Your task to perform on an android device: set default search engine in the chrome app Image 0: 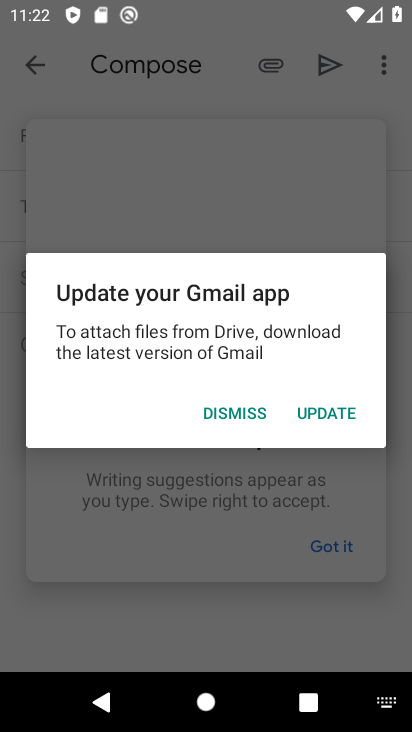
Step 0: press home button
Your task to perform on an android device: set default search engine in the chrome app Image 1: 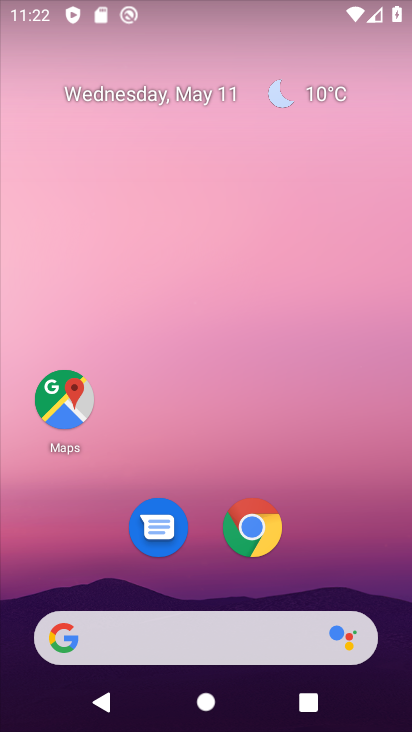
Step 1: drag from (194, 587) to (194, 84)
Your task to perform on an android device: set default search engine in the chrome app Image 2: 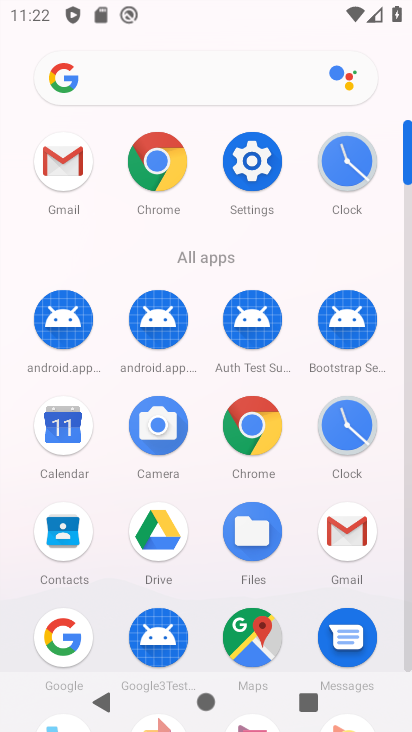
Step 2: click (238, 453)
Your task to perform on an android device: set default search engine in the chrome app Image 3: 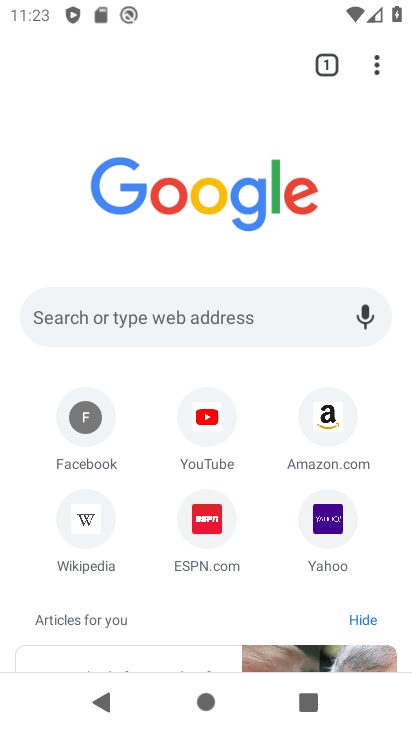
Step 3: click (377, 61)
Your task to perform on an android device: set default search engine in the chrome app Image 4: 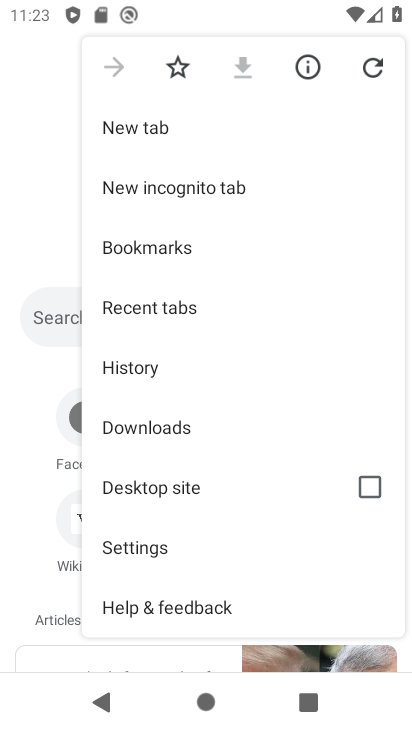
Step 4: click (147, 539)
Your task to perform on an android device: set default search engine in the chrome app Image 5: 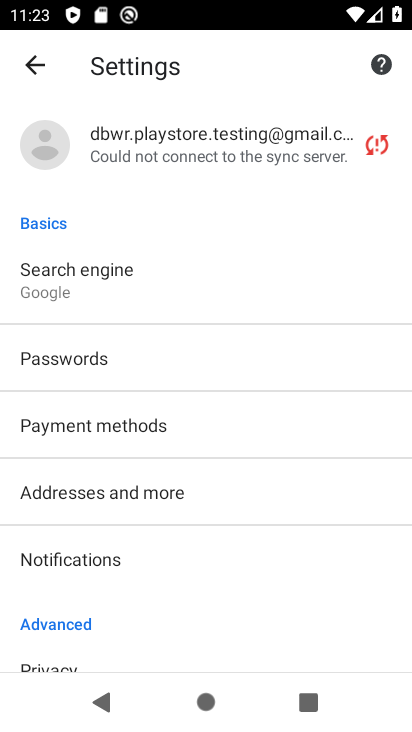
Step 5: click (91, 283)
Your task to perform on an android device: set default search engine in the chrome app Image 6: 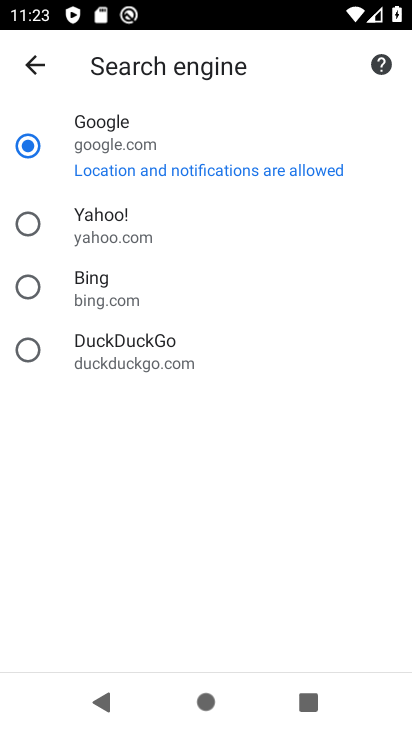
Step 6: task complete